Your task to perform on an android device: turn smart compose on in the gmail app Image 0: 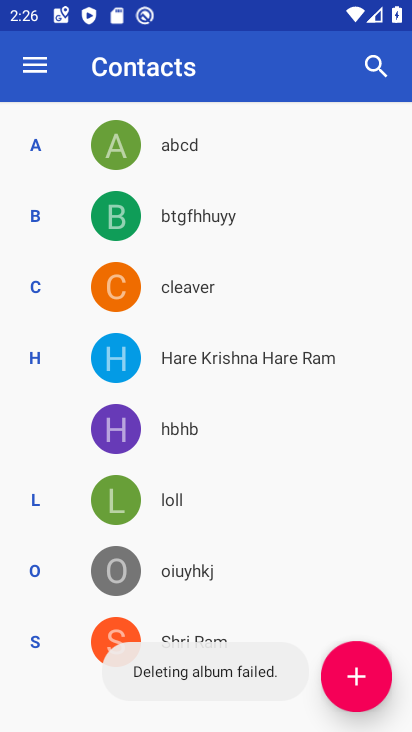
Step 0: press home button
Your task to perform on an android device: turn smart compose on in the gmail app Image 1: 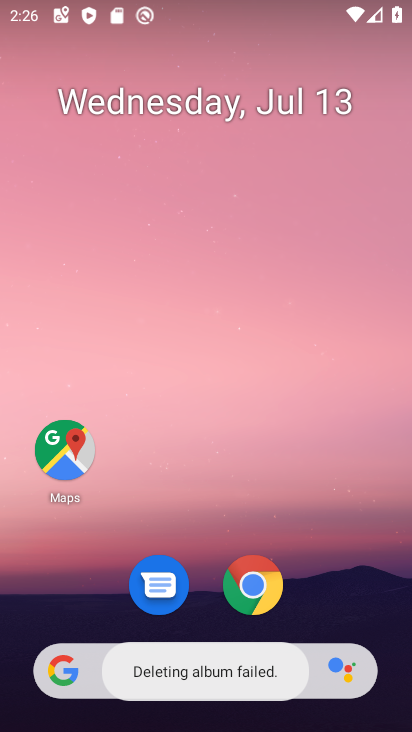
Step 1: drag from (317, 668) to (382, 217)
Your task to perform on an android device: turn smart compose on in the gmail app Image 2: 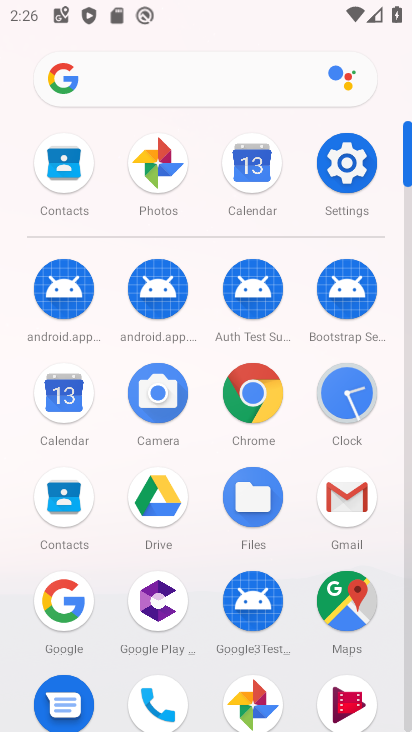
Step 2: click (358, 501)
Your task to perform on an android device: turn smart compose on in the gmail app Image 3: 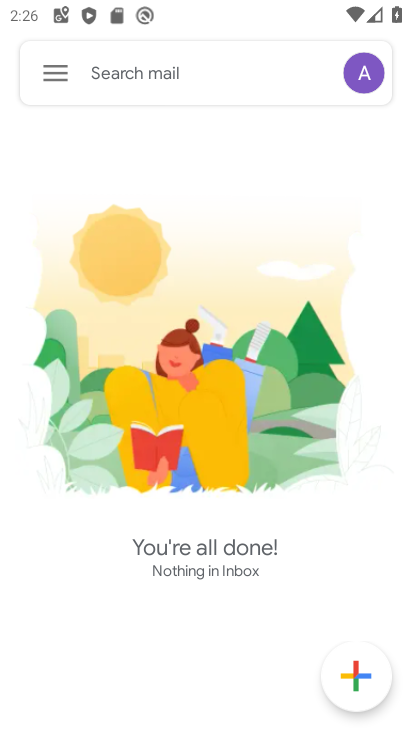
Step 3: click (55, 70)
Your task to perform on an android device: turn smart compose on in the gmail app Image 4: 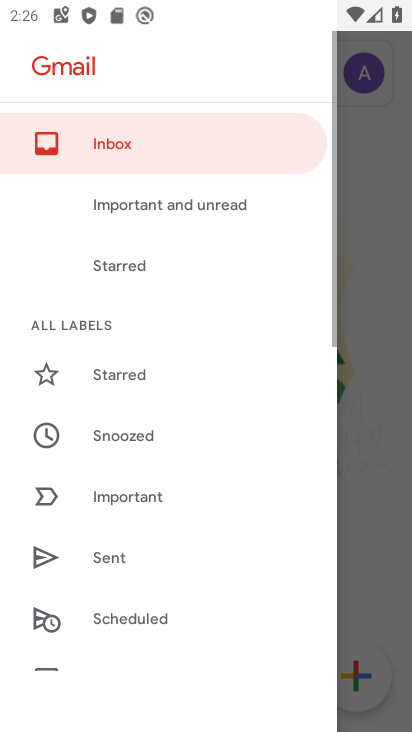
Step 4: drag from (155, 648) to (276, 104)
Your task to perform on an android device: turn smart compose on in the gmail app Image 5: 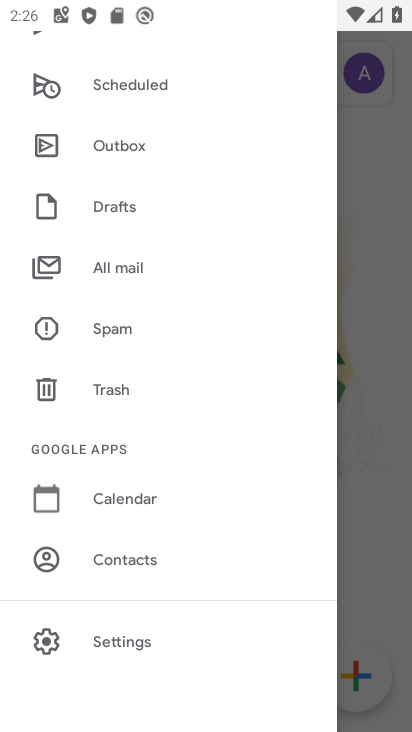
Step 5: click (147, 642)
Your task to perform on an android device: turn smart compose on in the gmail app Image 6: 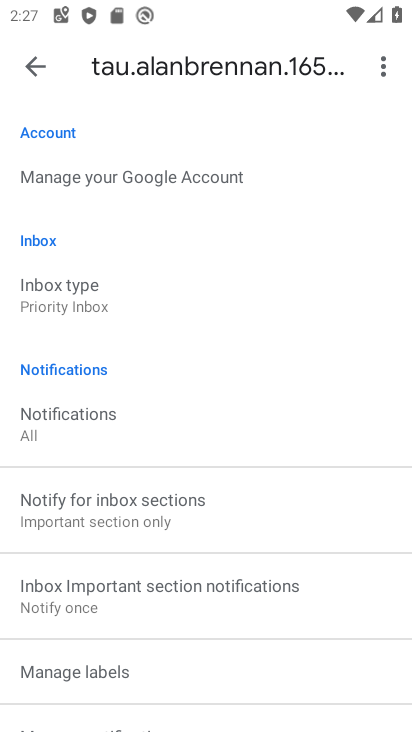
Step 6: task complete